Your task to perform on an android device: toggle wifi Image 0: 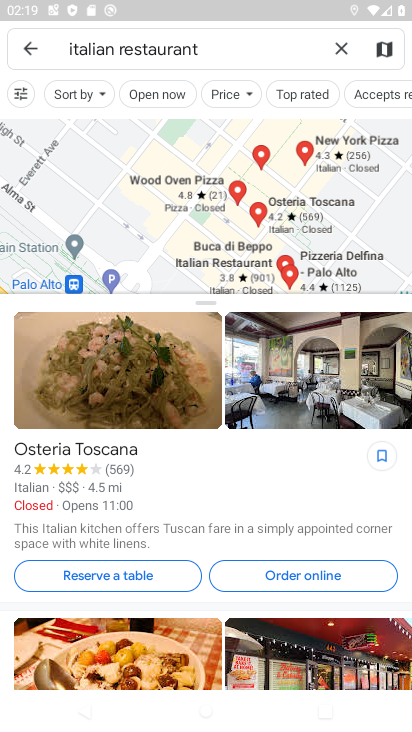
Step 0: press home button
Your task to perform on an android device: toggle wifi Image 1: 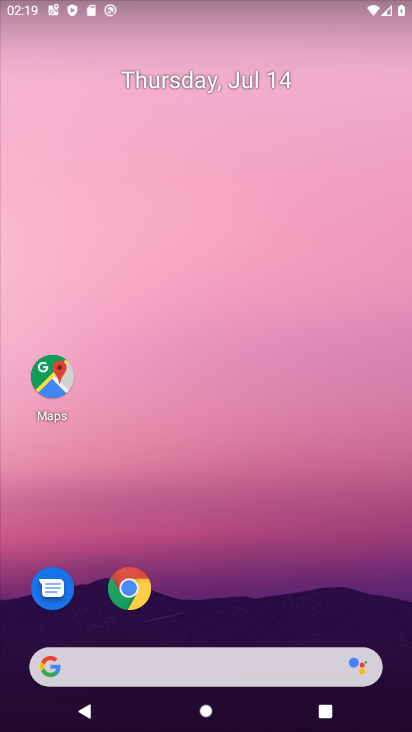
Step 1: drag from (251, 705) to (307, 30)
Your task to perform on an android device: toggle wifi Image 2: 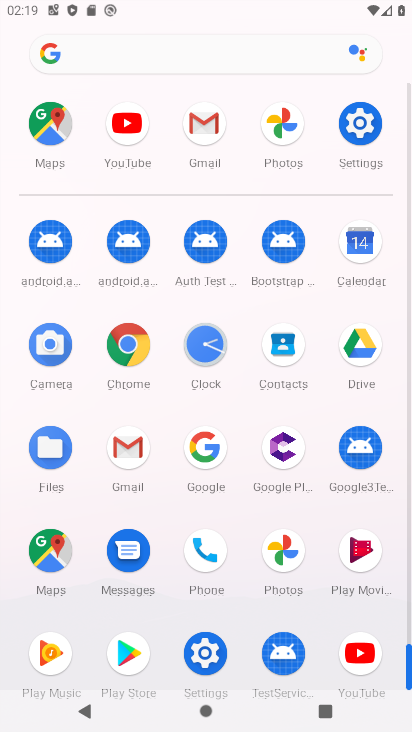
Step 2: click (368, 117)
Your task to perform on an android device: toggle wifi Image 3: 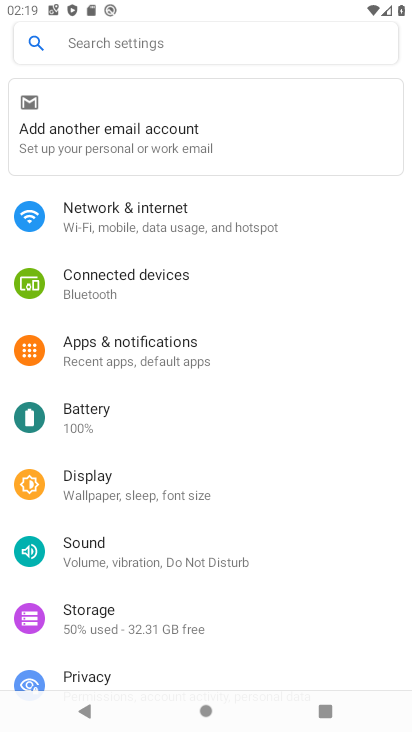
Step 3: click (156, 214)
Your task to perform on an android device: toggle wifi Image 4: 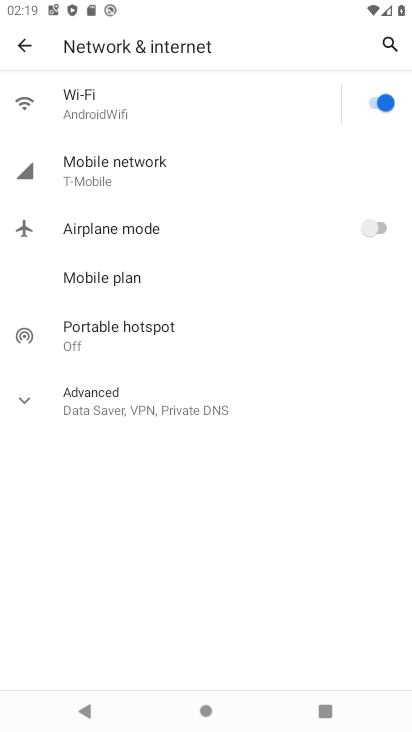
Step 4: click (390, 100)
Your task to perform on an android device: toggle wifi Image 5: 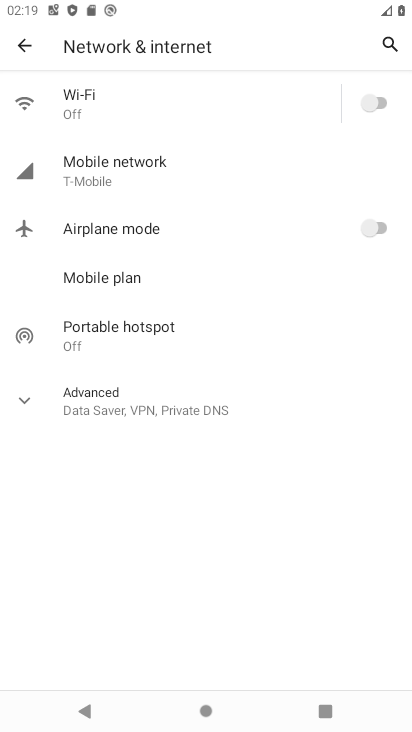
Step 5: task complete